Your task to perform on an android device: Open my contact list Image 0: 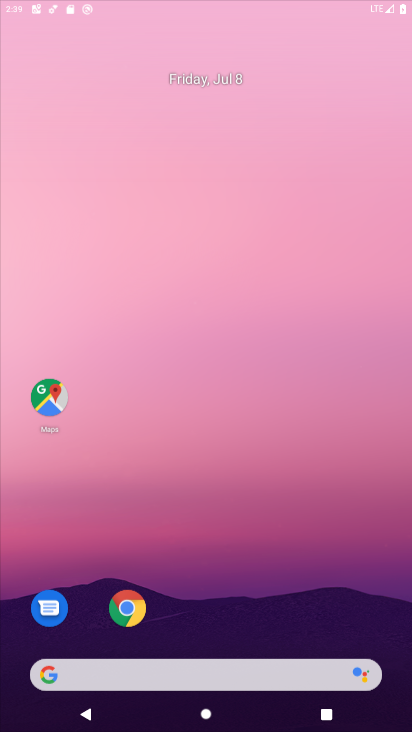
Step 0: drag from (201, 594) to (215, 183)
Your task to perform on an android device: Open my contact list Image 1: 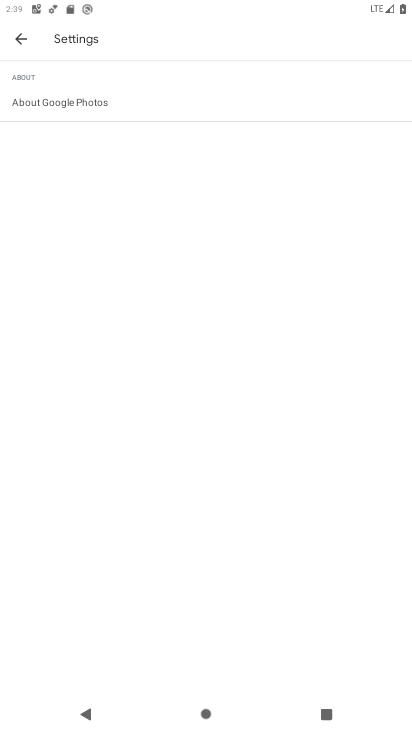
Step 1: press home button
Your task to perform on an android device: Open my contact list Image 2: 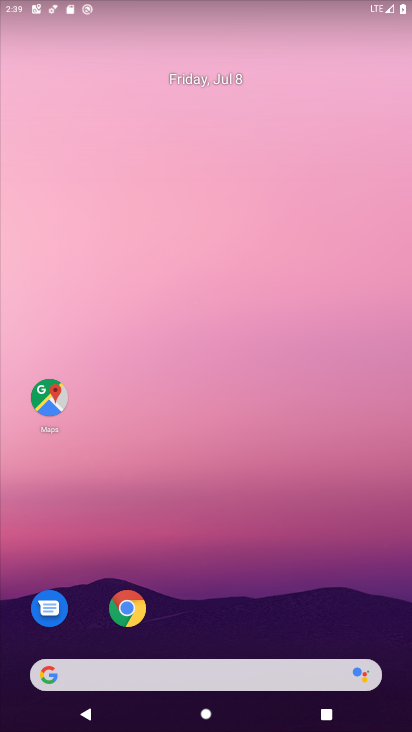
Step 2: drag from (263, 611) to (265, 152)
Your task to perform on an android device: Open my contact list Image 3: 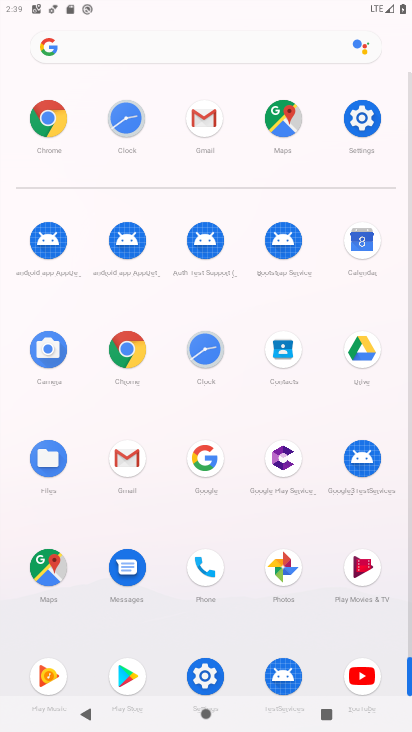
Step 3: click (207, 570)
Your task to perform on an android device: Open my contact list Image 4: 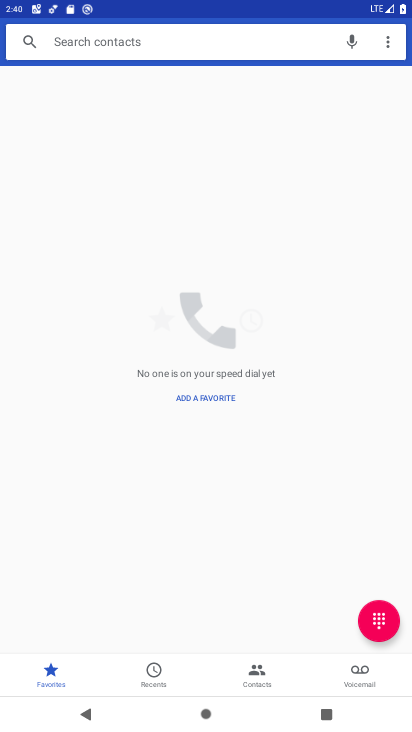
Step 4: click (245, 670)
Your task to perform on an android device: Open my contact list Image 5: 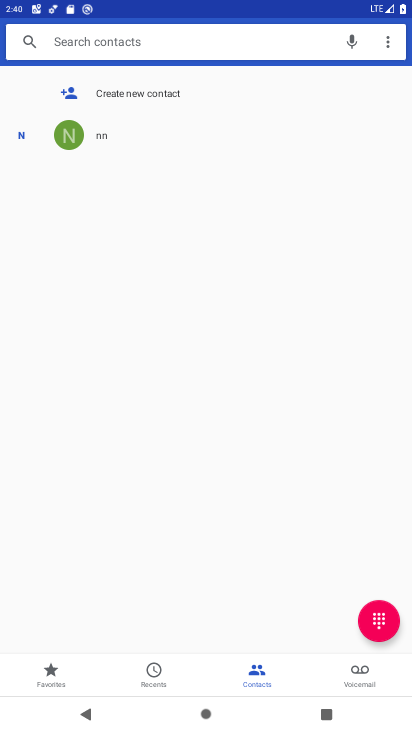
Step 5: task complete